Your task to perform on an android device: turn off javascript in the chrome app Image 0: 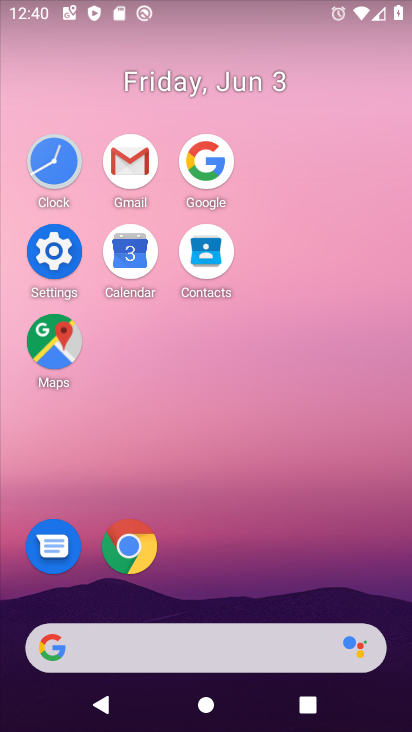
Step 0: click (152, 554)
Your task to perform on an android device: turn off javascript in the chrome app Image 1: 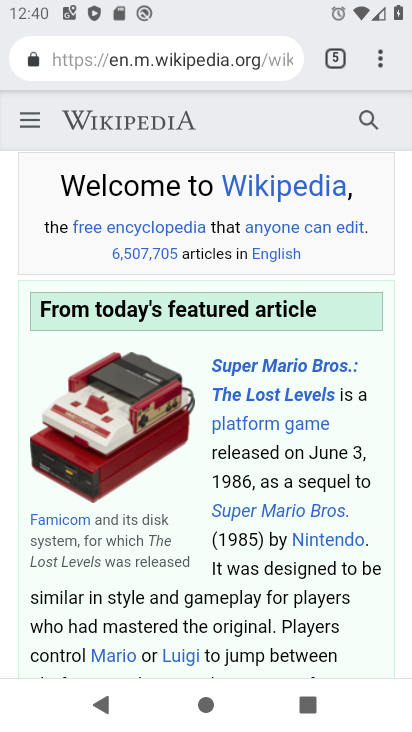
Step 1: click (378, 59)
Your task to perform on an android device: turn off javascript in the chrome app Image 2: 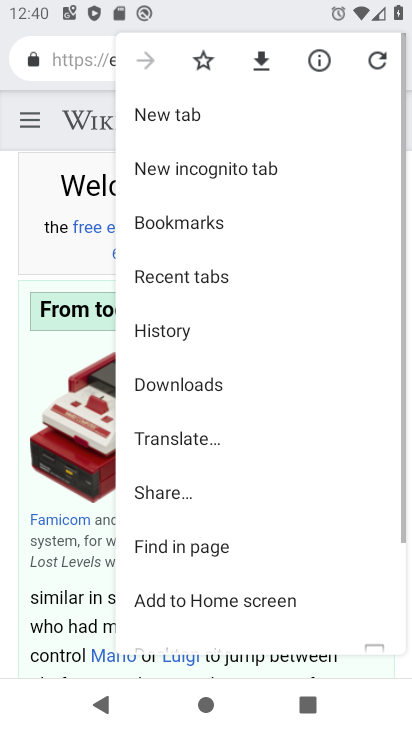
Step 2: drag from (259, 459) to (274, 51)
Your task to perform on an android device: turn off javascript in the chrome app Image 3: 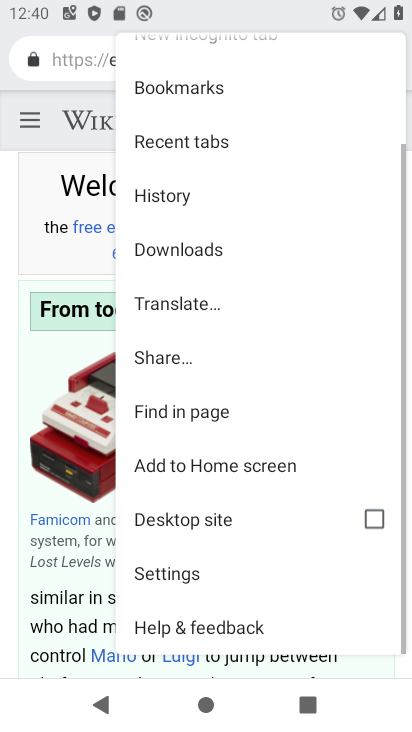
Step 3: click (180, 575)
Your task to perform on an android device: turn off javascript in the chrome app Image 4: 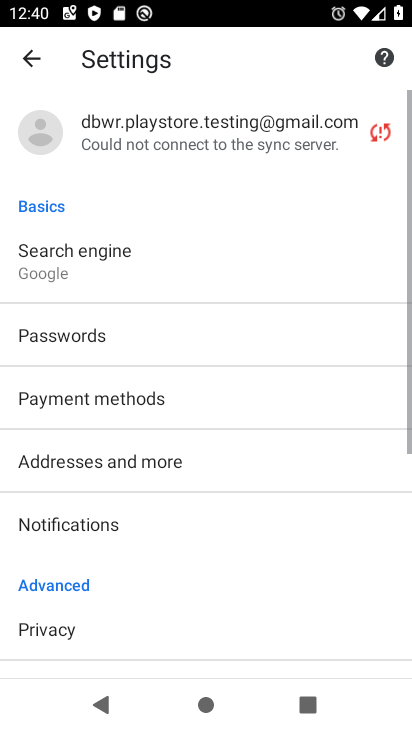
Step 4: drag from (183, 509) to (224, 100)
Your task to perform on an android device: turn off javascript in the chrome app Image 5: 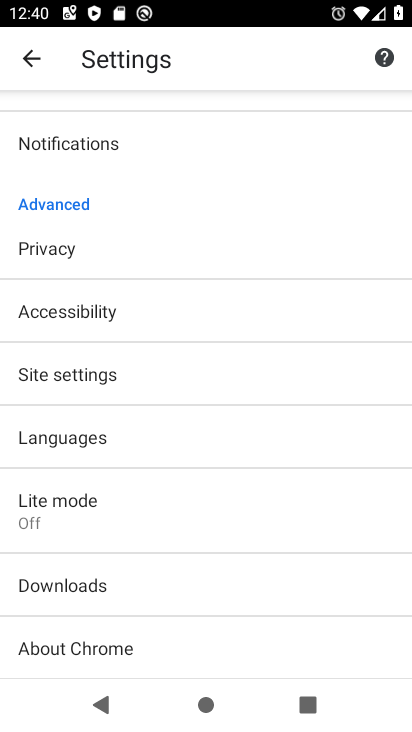
Step 5: drag from (167, 552) to (227, 164)
Your task to perform on an android device: turn off javascript in the chrome app Image 6: 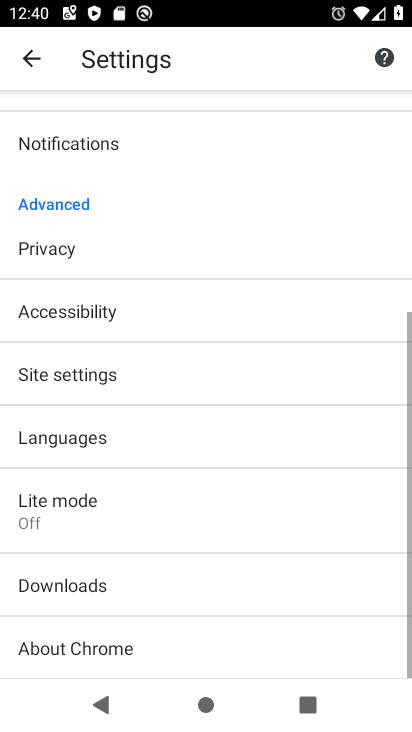
Step 6: drag from (182, 536) to (286, 148)
Your task to perform on an android device: turn off javascript in the chrome app Image 7: 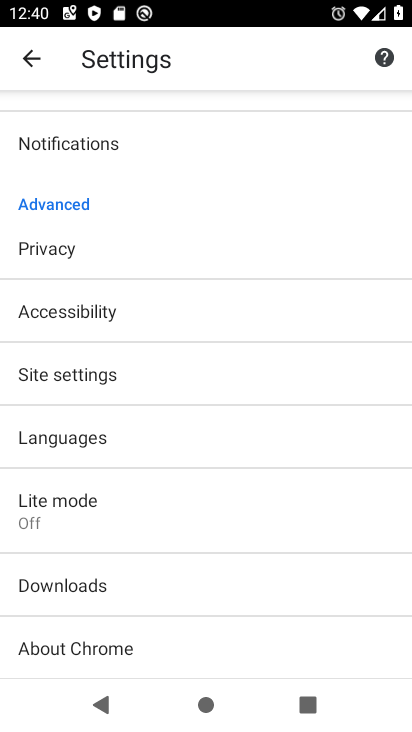
Step 7: drag from (288, 255) to (301, 517)
Your task to perform on an android device: turn off javascript in the chrome app Image 8: 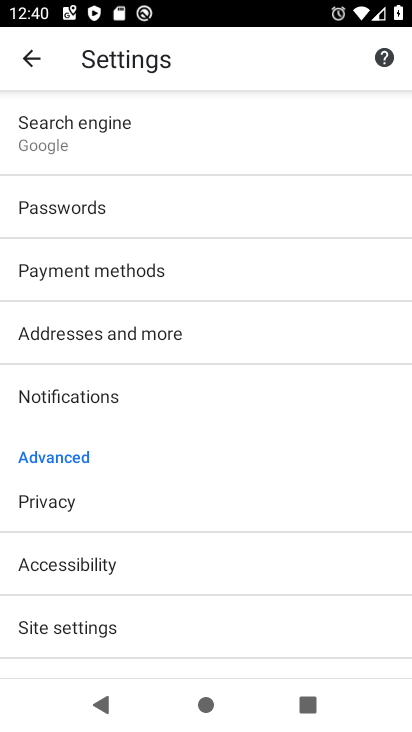
Step 8: drag from (172, 561) to (213, 263)
Your task to perform on an android device: turn off javascript in the chrome app Image 9: 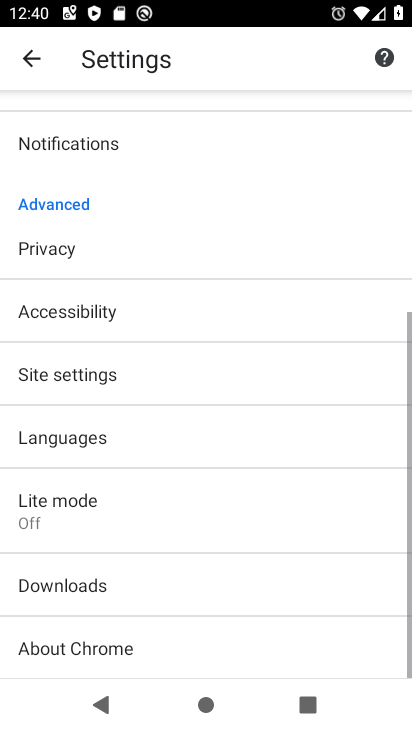
Step 9: click (195, 386)
Your task to perform on an android device: turn off javascript in the chrome app Image 10: 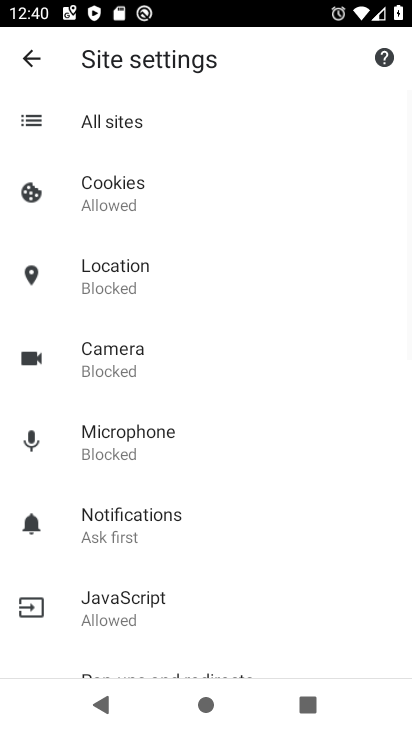
Step 10: drag from (203, 533) to (229, 158)
Your task to perform on an android device: turn off javascript in the chrome app Image 11: 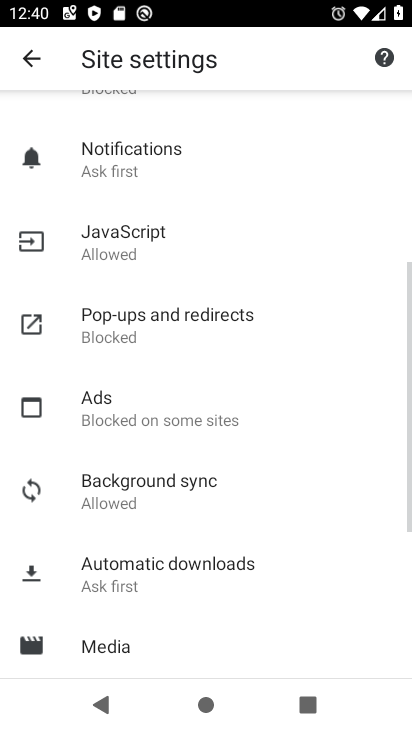
Step 11: click (202, 251)
Your task to perform on an android device: turn off javascript in the chrome app Image 12: 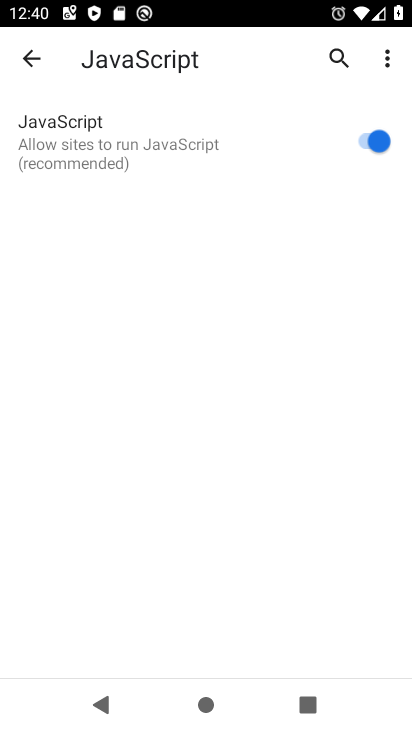
Step 12: click (377, 144)
Your task to perform on an android device: turn off javascript in the chrome app Image 13: 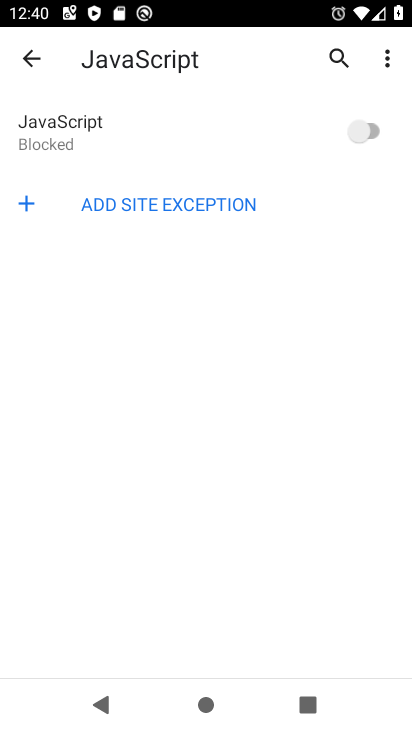
Step 13: task complete